Your task to perform on an android device: Show me the alarms in the clock app Image 0: 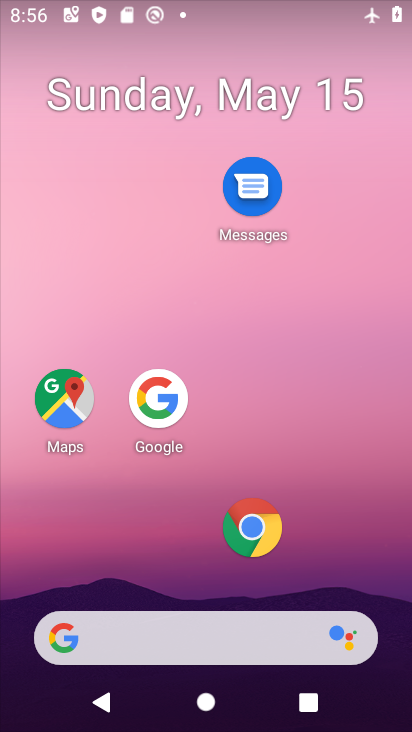
Step 0: drag from (145, 647) to (321, 100)
Your task to perform on an android device: Show me the alarms in the clock app Image 1: 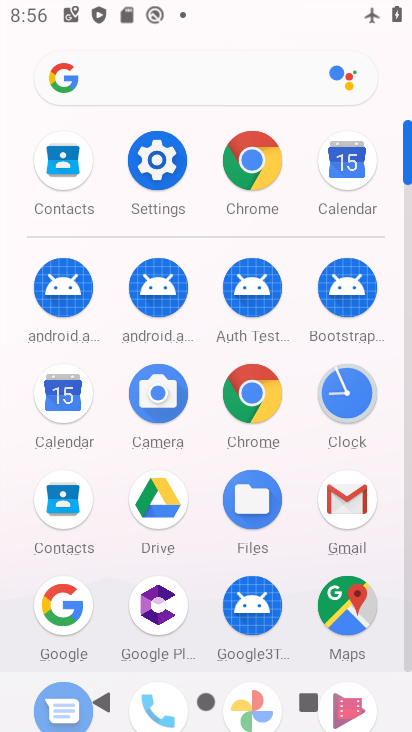
Step 1: click (338, 404)
Your task to perform on an android device: Show me the alarms in the clock app Image 2: 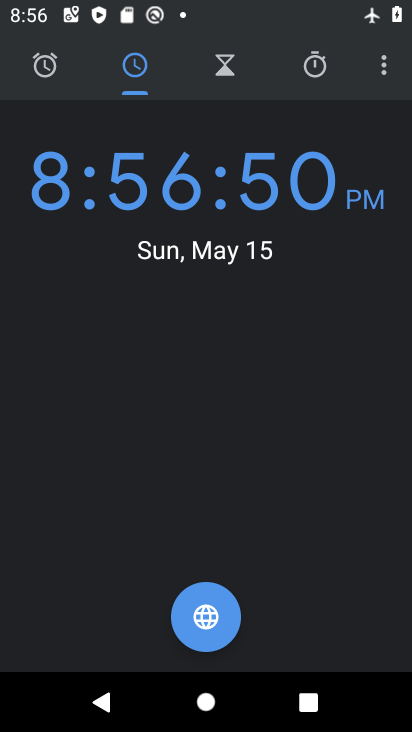
Step 2: click (37, 63)
Your task to perform on an android device: Show me the alarms in the clock app Image 3: 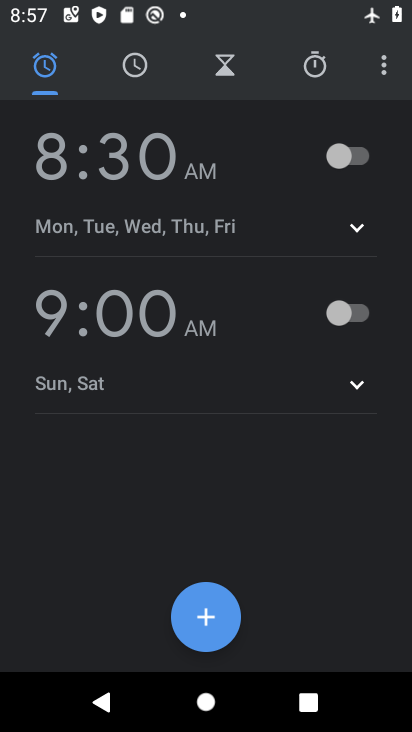
Step 3: task complete